Your task to perform on an android device: What's the weather going to be this weekend? Image 0: 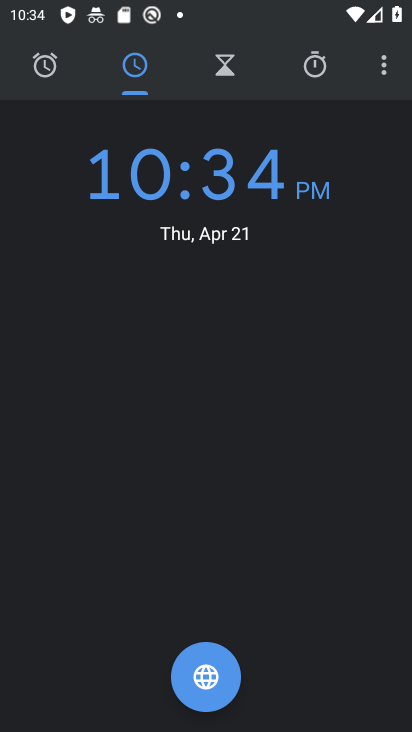
Step 0: press home button
Your task to perform on an android device: What's the weather going to be this weekend? Image 1: 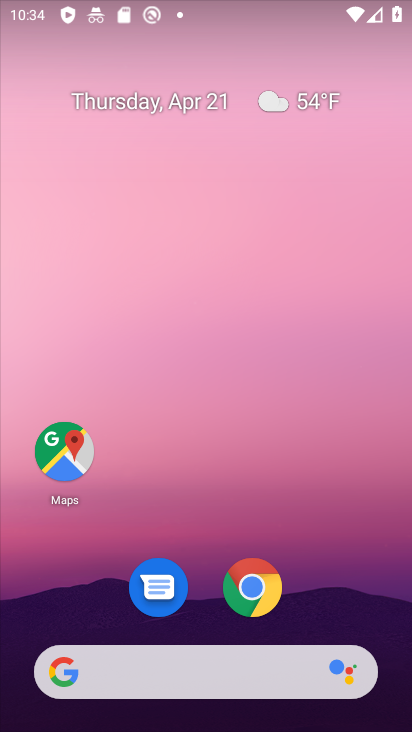
Step 1: click (280, 104)
Your task to perform on an android device: What's the weather going to be this weekend? Image 2: 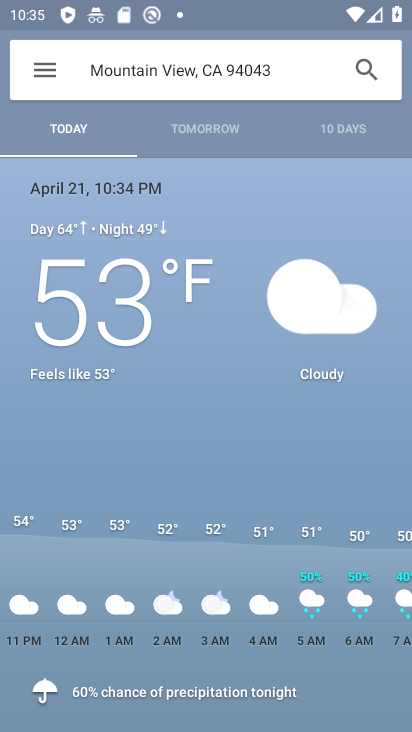
Step 2: click (342, 132)
Your task to perform on an android device: What's the weather going to be this weekend? Image 3: 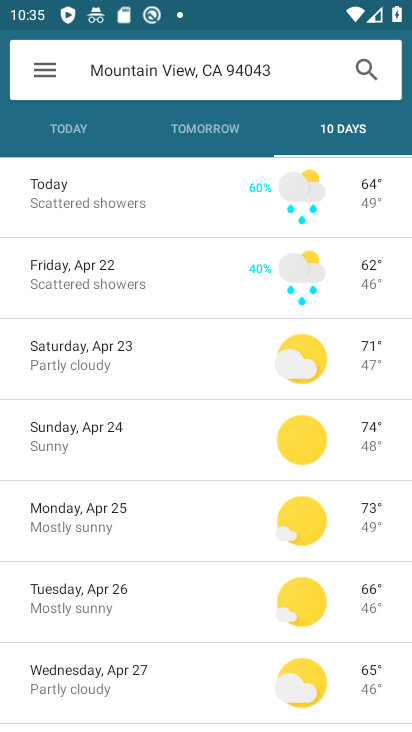
Step 3: task complete